Your task to perform on an android device: clear history in the chrome app Image 0: 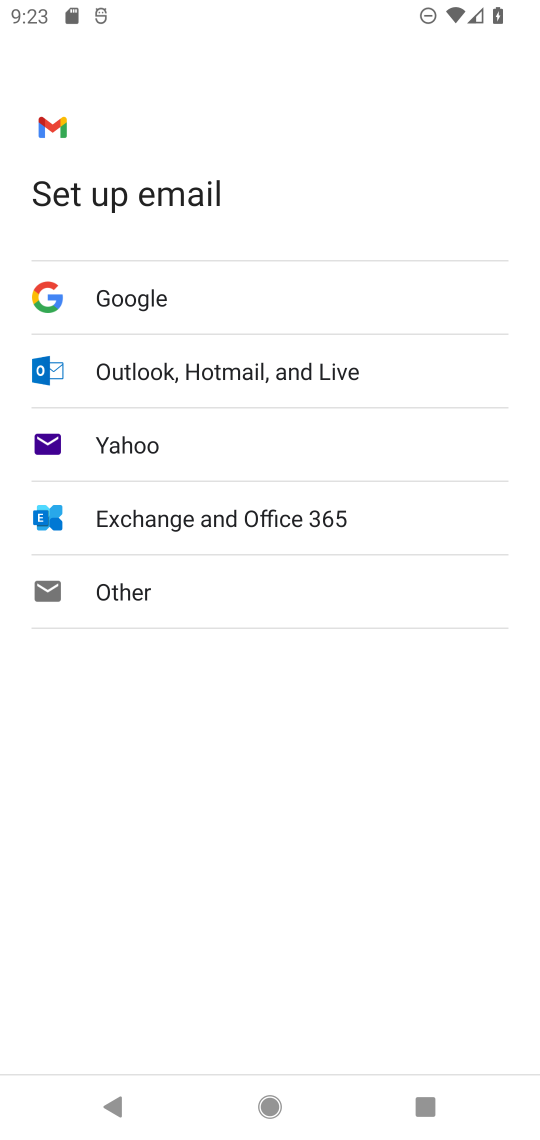
Step 0: press home button
Your task to perform on an android device: clear history in the chrome app Image 1: 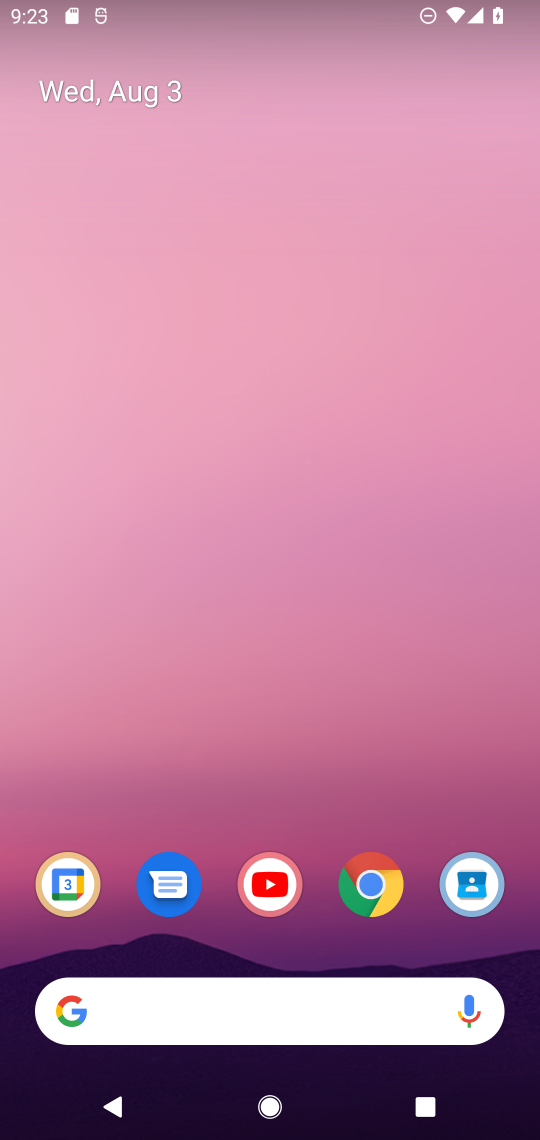
Step 1: click (387, 906)
Your task to perform on an android device: clear history in the chrome app Image 2: 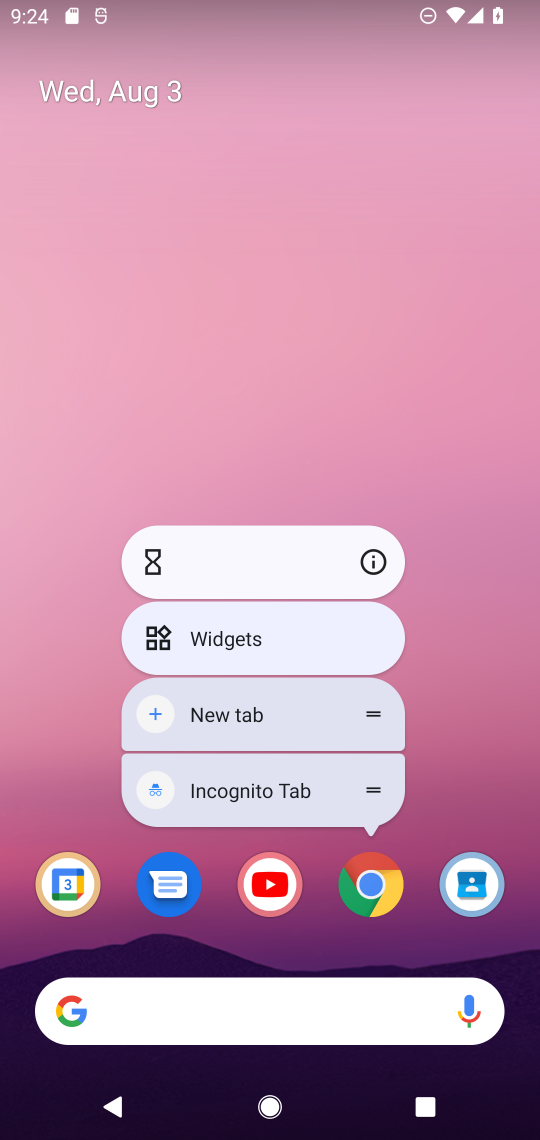
Step 2: click (376, 872)
Your task to perform on an android device: clear history in the chrome app Image 3: 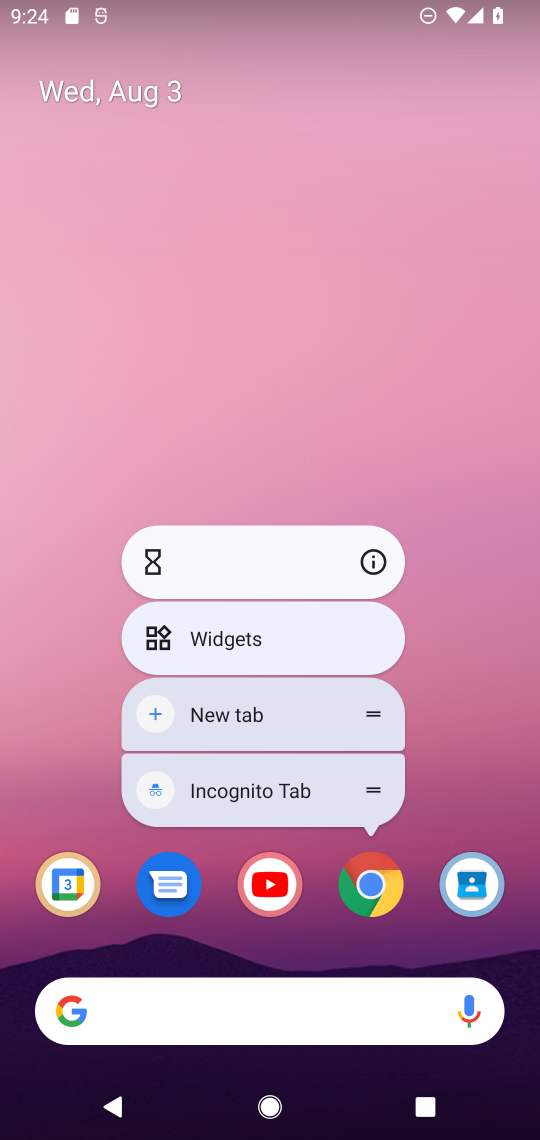
Step 3: task complete